Your task to perform on an android device: remove spam from my inbox in the gmail app Image 0: 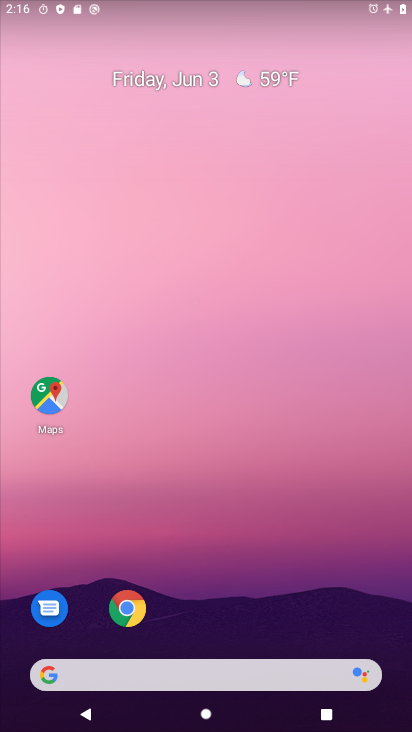
Step 0: drag from (217, 695) to (161, 79)
Your task to perform on an android device: remove spam from my inbox in the gmail app Image 1: 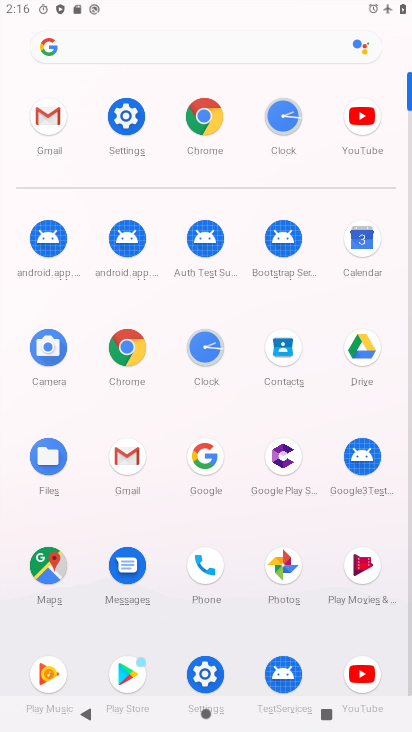
Step 1: click (123, 470)
Your task to perform on an android device: remove spam from my inbox in the gmail app Image 2: 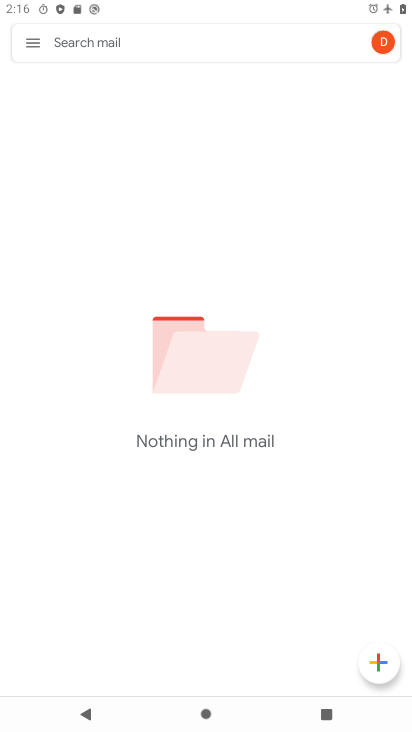
Step 2: click (40, 47)
Your task to perform on an android device: remove spam from my inbox in the gmail app Image 3: 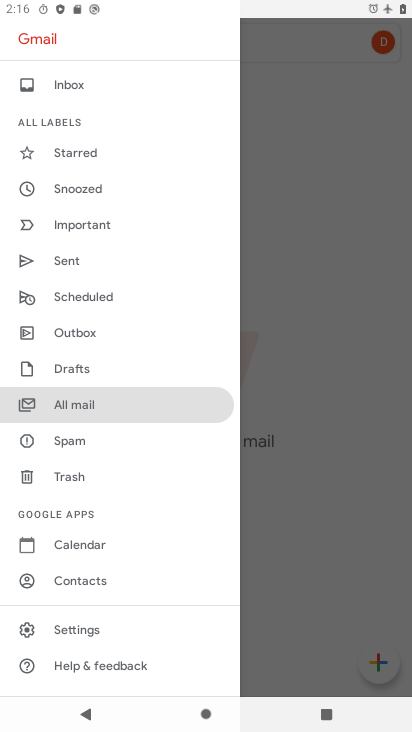
Step 3: click (83, 438)
Your task to perform on an android device: remove spam from my inbox in the gmail app Image 4: 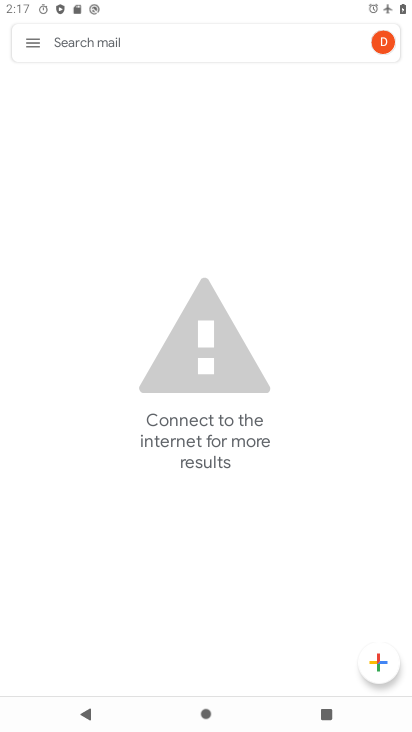
Step 4: click (35, 48)
Your task to perform on an android device: remove spam from my inbox in the gmail app Image 5: 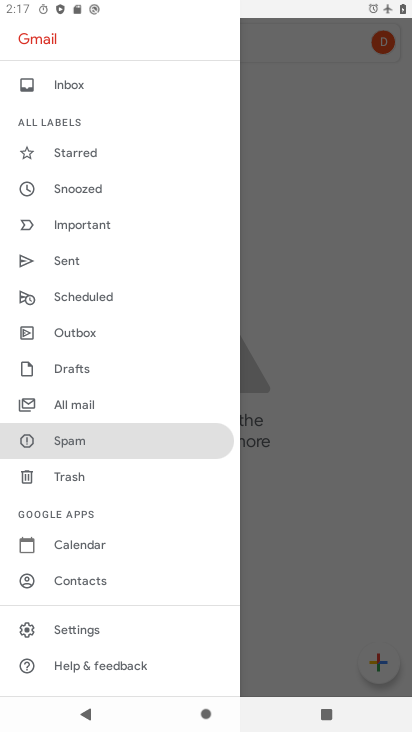
Step 5: click (98, 442)
Your task to perform on an android device: remove spam from my inbox in the gmail app Image 6: 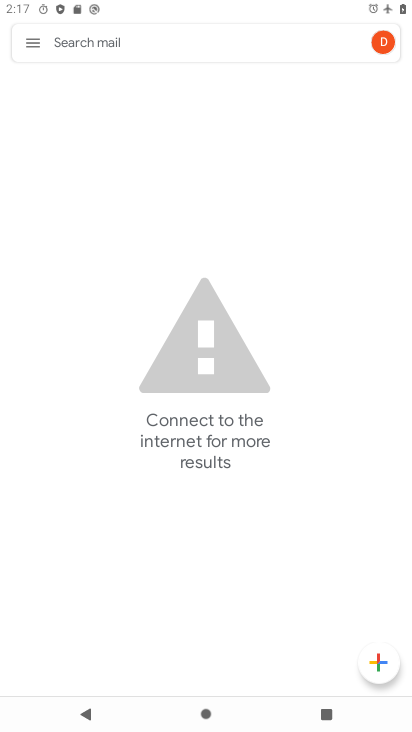
Step 6: task complete